Your task to perform on an android device: Open my contact list Image 0: 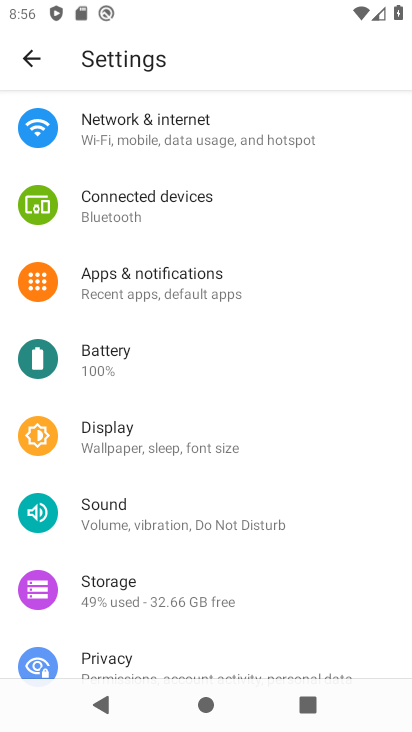
Step 0: press home button
Your task to perform on an android device: Open my contact list Image 1: 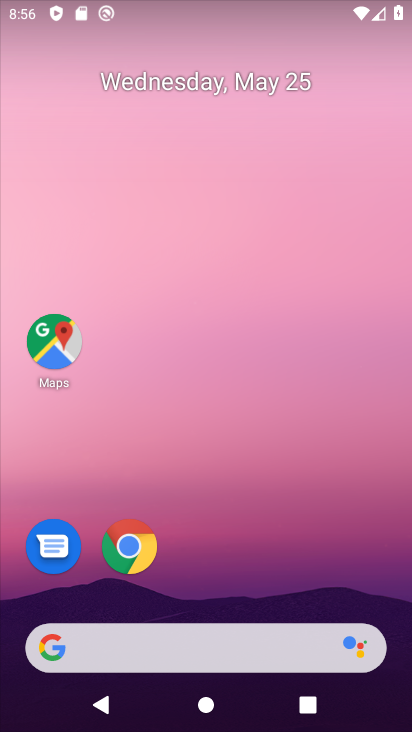
Step 1: drag from (226, 511) to (239, 299)
Your task to perform on an android device: Open my contact list Image 2: 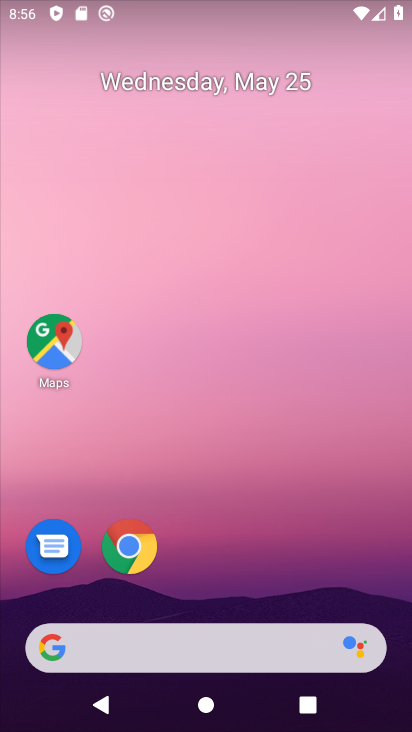
Step 2: drag from (225, 608) to (259, 245)
Your task to perform on an android device: Open my contact list Image 3: 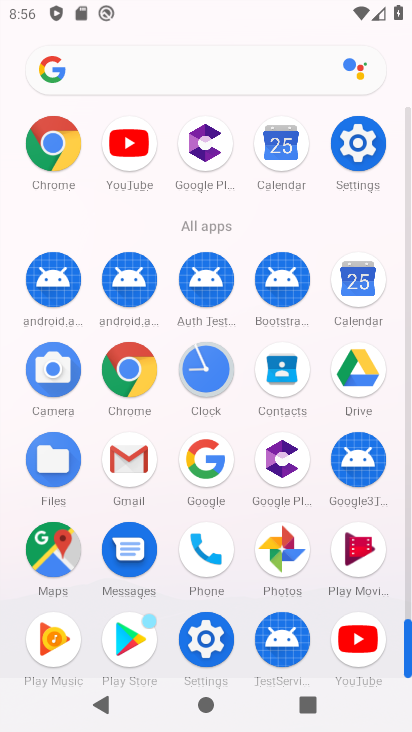
Step 3: click (216, 540)
Your task to perform on an android device: Open my contact list Image 4: 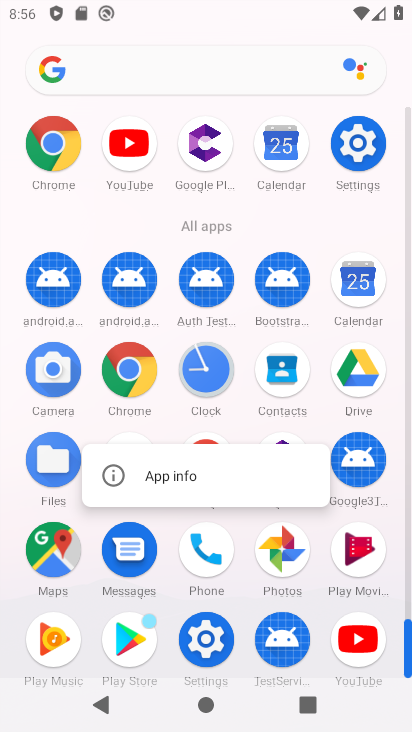
Step 4: click (190, 547)
Your task to perform on an android device: Open my contact list Image 5: 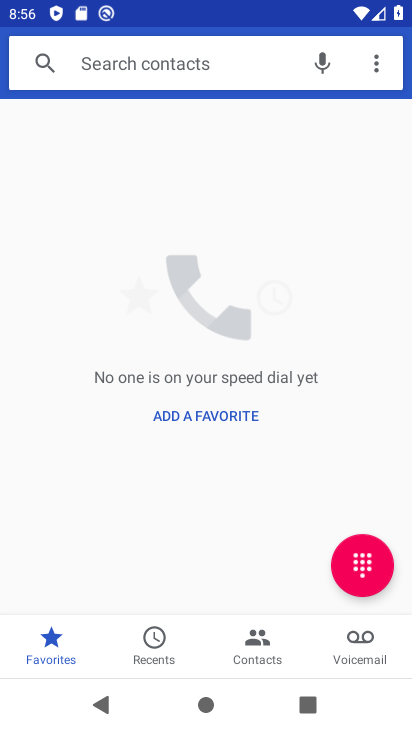
Step 5: click (263, 634)
Your task to perform on an android device: Open my contact list Image 6: 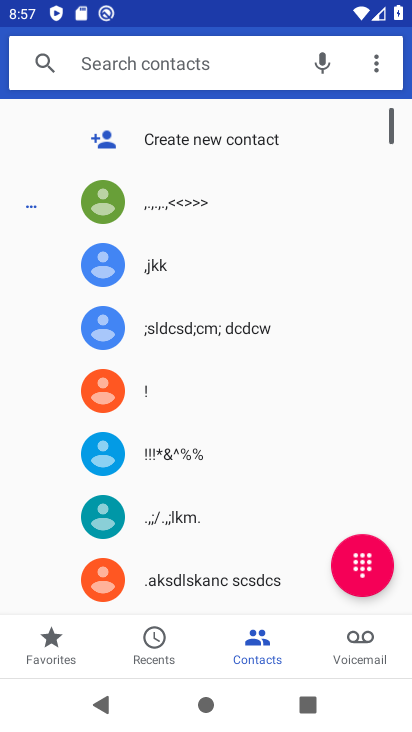
Step 6: task complete